Your task to perform on an android device: What's the news in Brunei? Image 0: 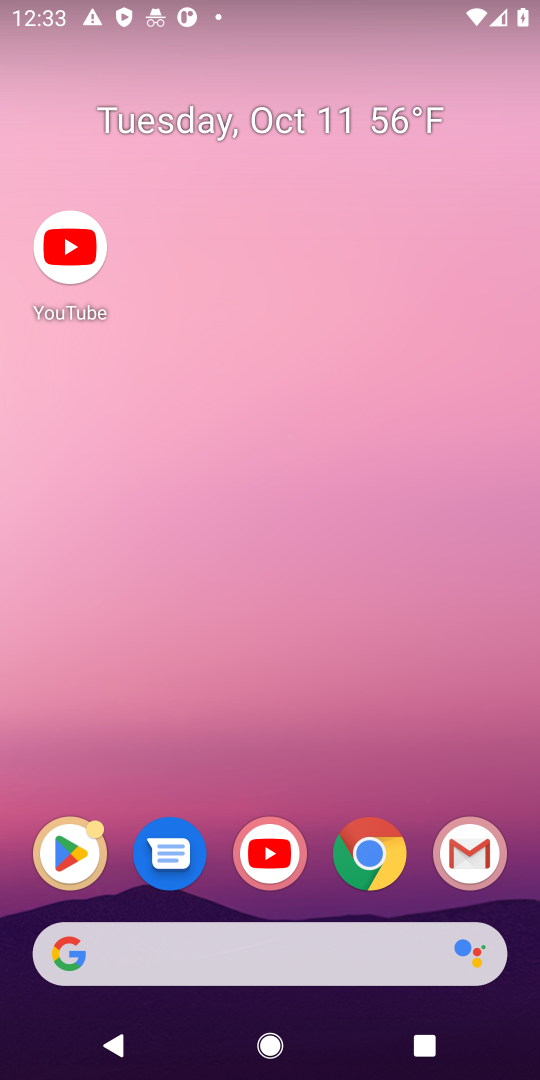
Step 0: drag from (287, 776) to (225, 47)
Your task to perform on an android device: What's the news in Brunei? Image 1: 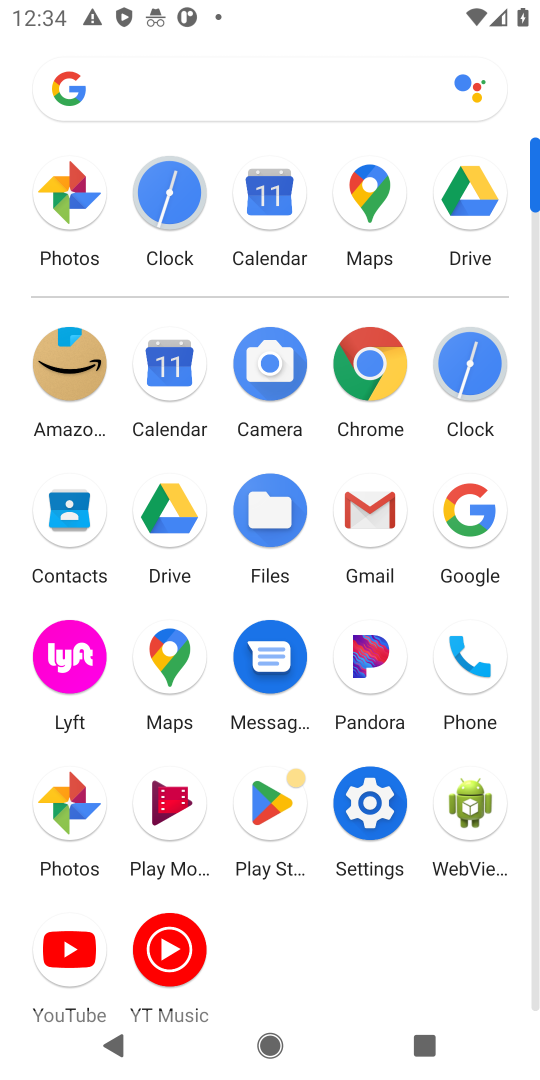
Step 1: click (379, 362)
Your task to perform on an android device: What's the news in Brunei? Image 2: 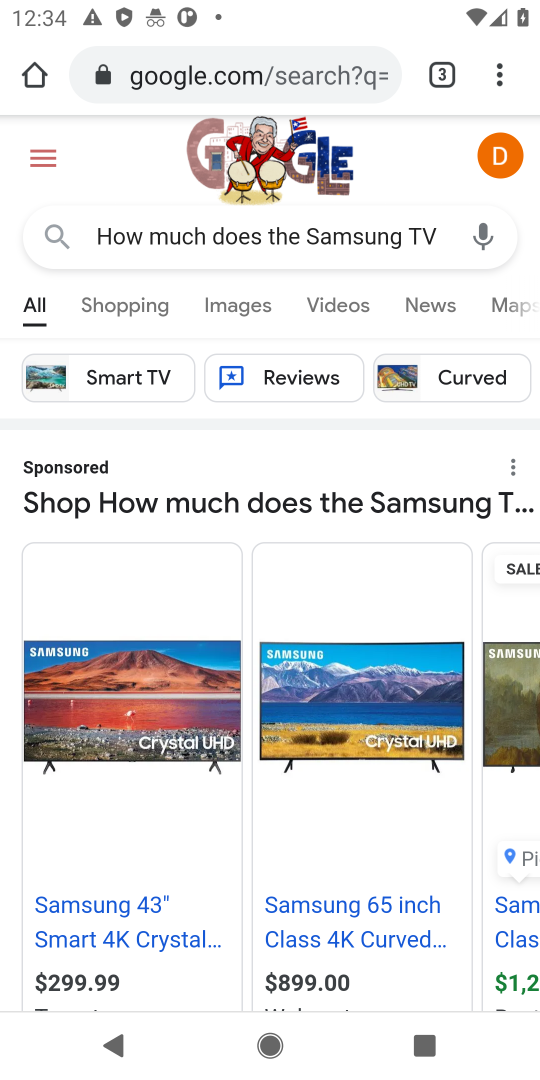
Step 2: click (164, 73)
Your task to perform on an android device: What's the news in Brunei? Image 3: 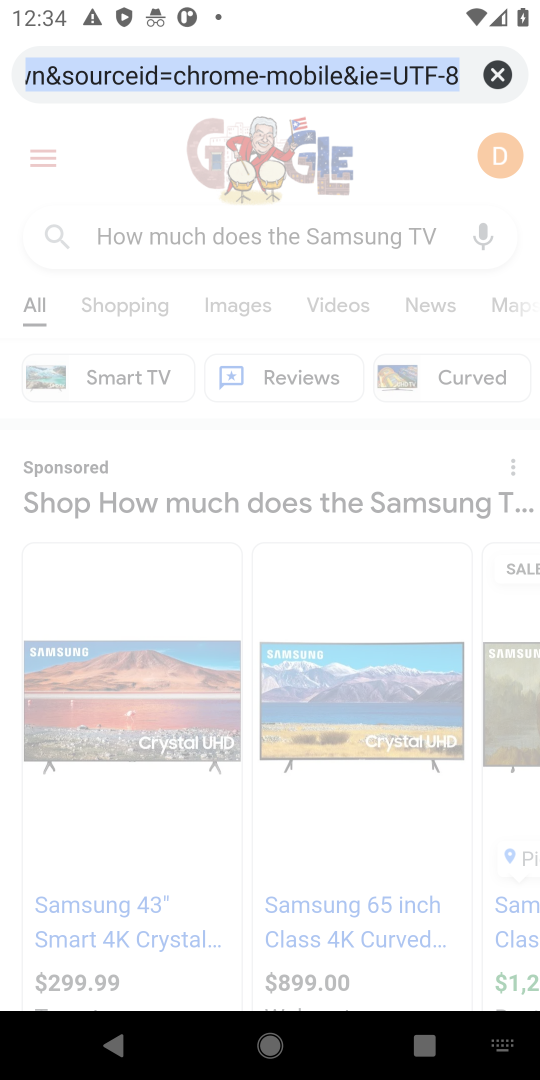
Step 3: click (485, 68)
Your task to perform on an android device: What's the news in Brunei? Image 4: 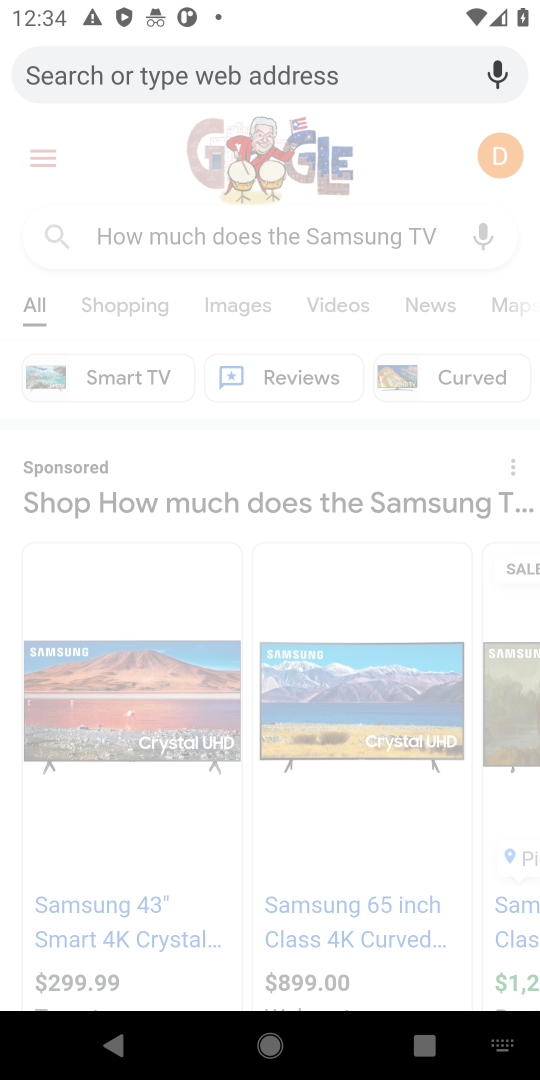
Step 4: type "What's the news in Brunei?"
Your task to perform on an android device: What's the news in Brunei? Image 5: 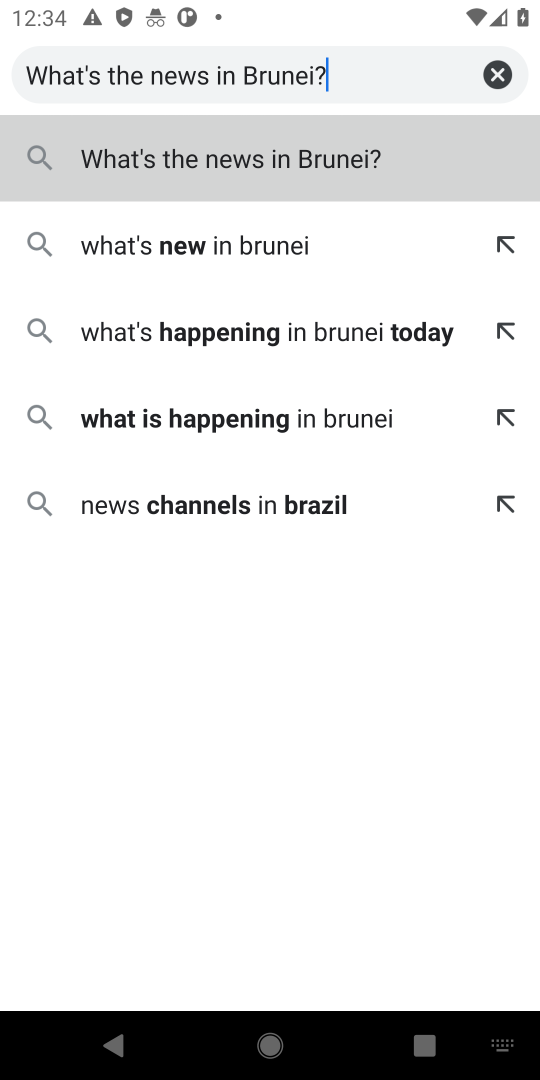
Step 5: click (338, 153)
Your task to perform on an android device: What's the news in Brunei? Image 6: 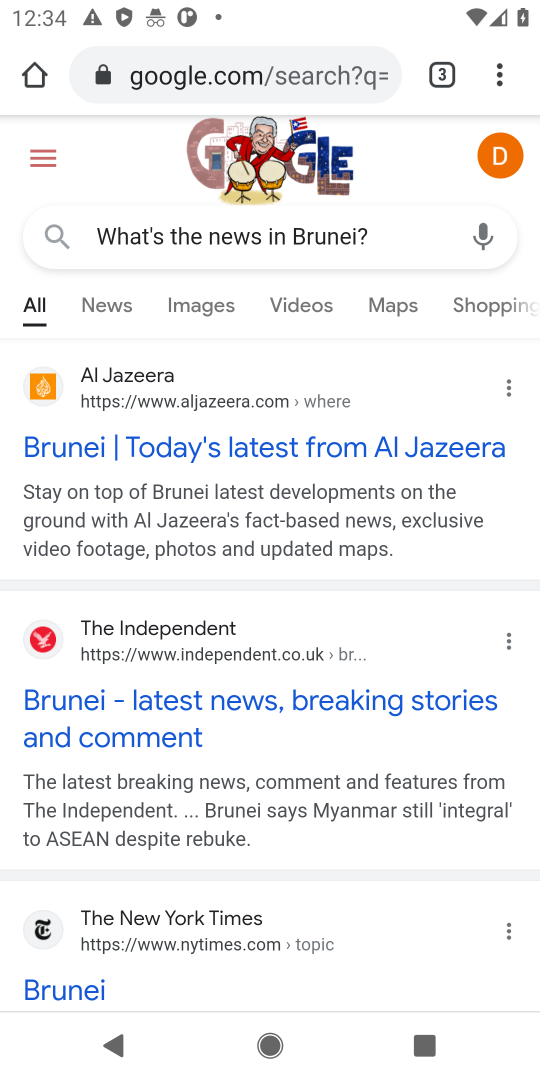
Step 6: click (359, 437)
Your task to perform on an android device: What's the news in Brunei? Image 7: 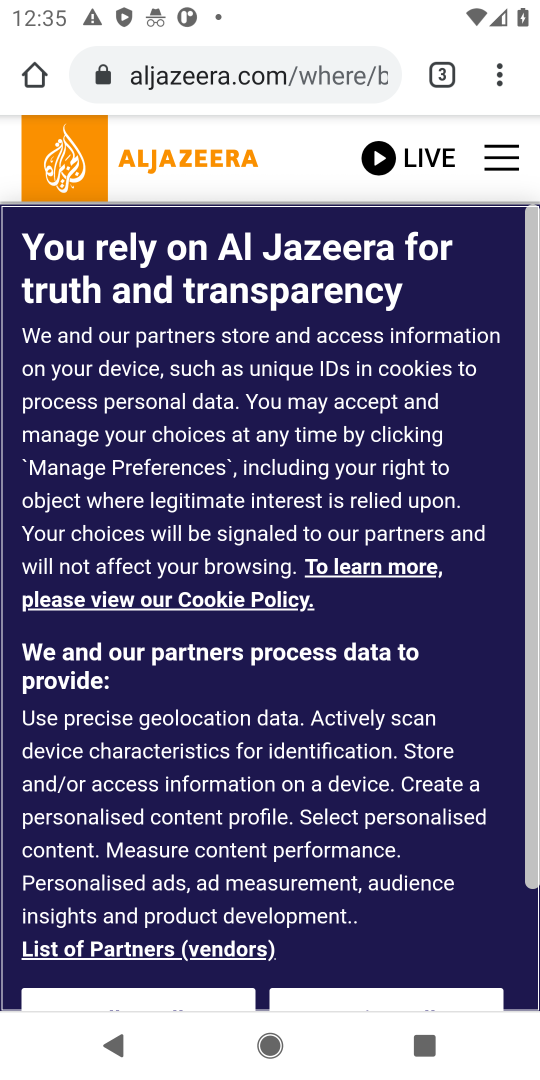
Step 7: task complete